Your task to perform on an android device: all mails in gmail Image 0: 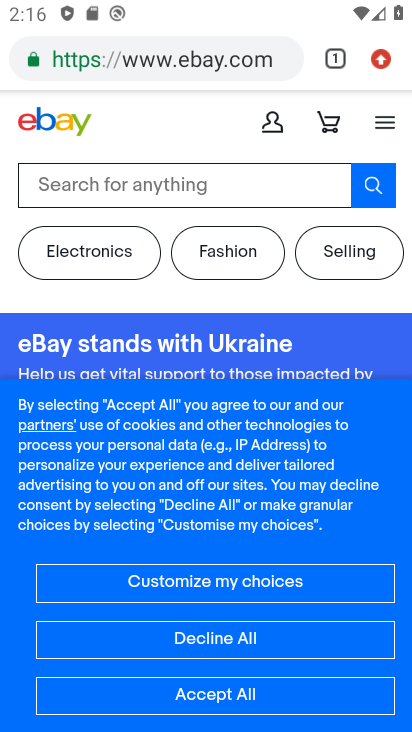
Step 0: press back button
Your task to perform on an android device: all mails in gmail Image 1: 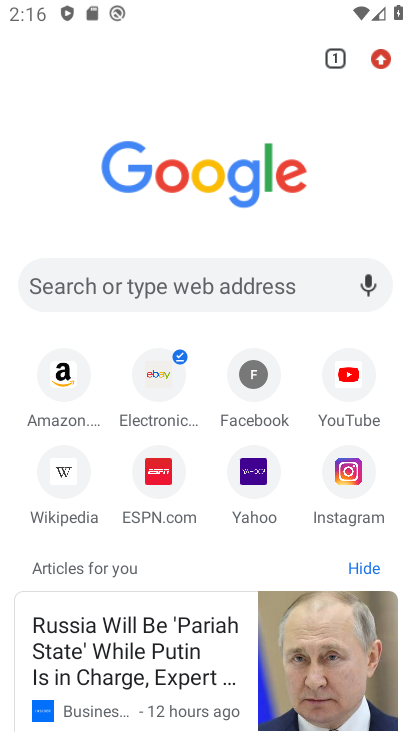
Step 1: press back button
Your task to perform on an android device: all mails in gmail Image 2: 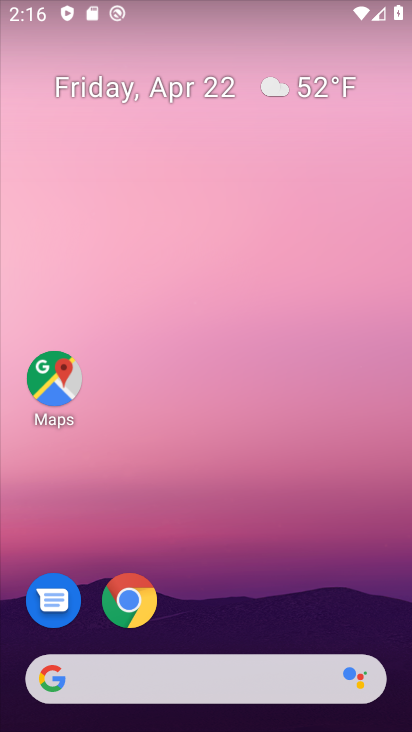
Step 2: drag from (298, 534) to (202, 11)
Your task to perform on an android device: all mails in gmail Image 3: 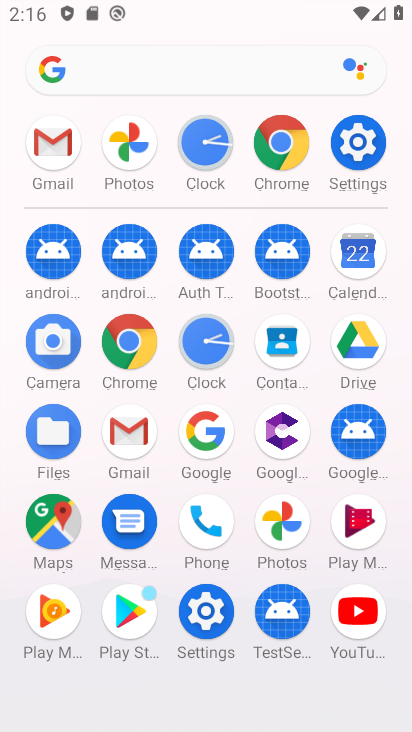
Step 3: click (55, 131)
Your task to perform on an android device: all mails in gmail Image 4: 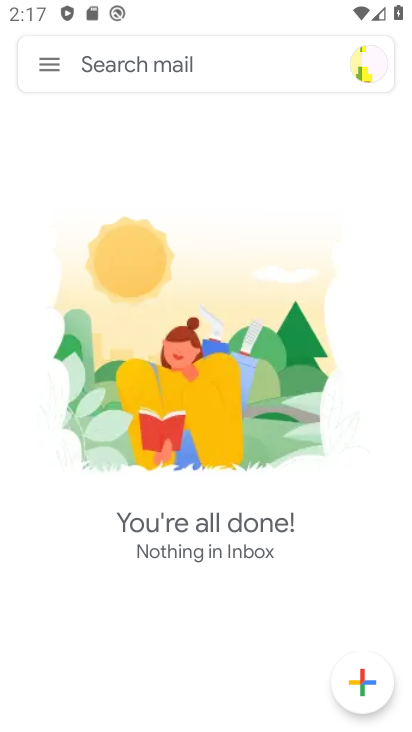
Step 4: click (56, 57)
Your task to perform on an android device: all mails in gmail Image 5: 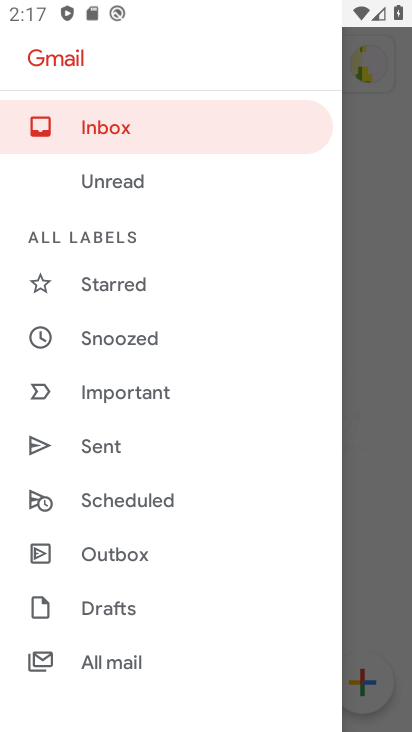
Step 5: drag from (194, 581) to (172, 310)
Your task to perform on an android device: all mails in gmail Image 6: 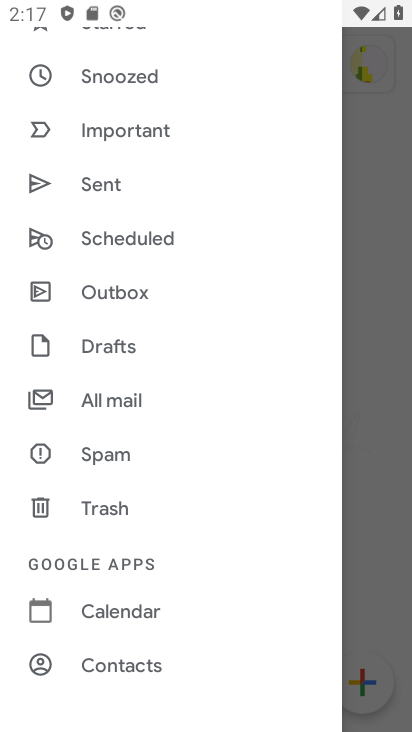
Step 6: click (113, 402)
Your task to perform on an android device: all mails in gmail Image 7: 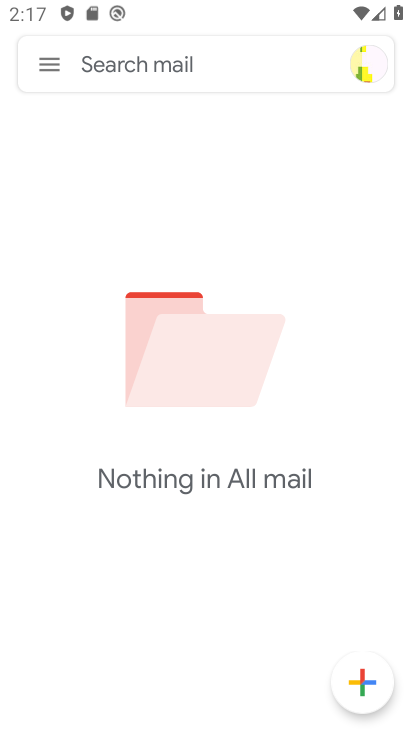
Step 7: task complete